Your task to perform on an android device: toggle airplane mode Image 0: 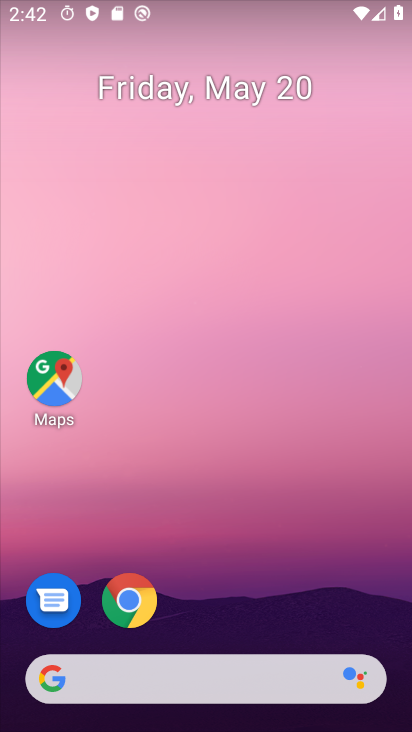
Step 0: drag from (240, 517) to (233, 46)
Your task to perform on an android device: toggle airplane mode Image 1: 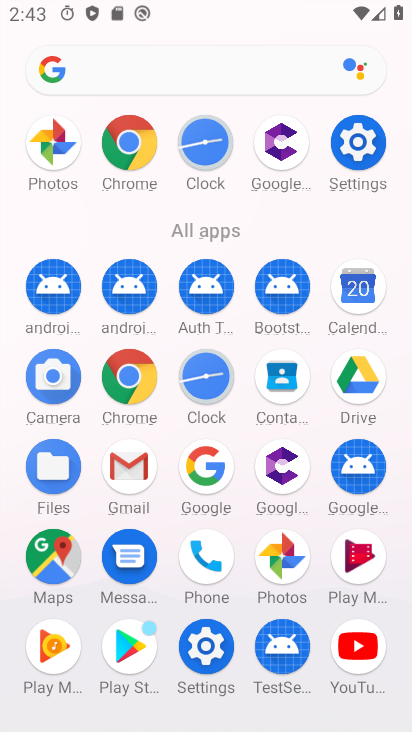
Step 1: drag from (21, 551) to (14, 240)
Your task to perform on an android device: toggle airplane mode Image 2: 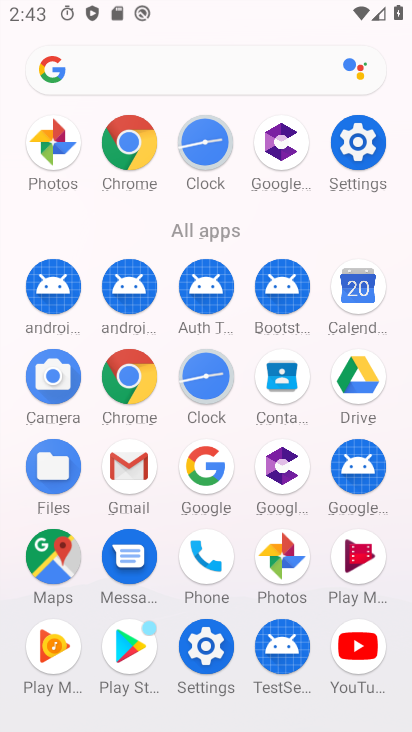
Step 2: click (205, 641)
Your task to perform on an android device: toggle airplane mode Image 3: 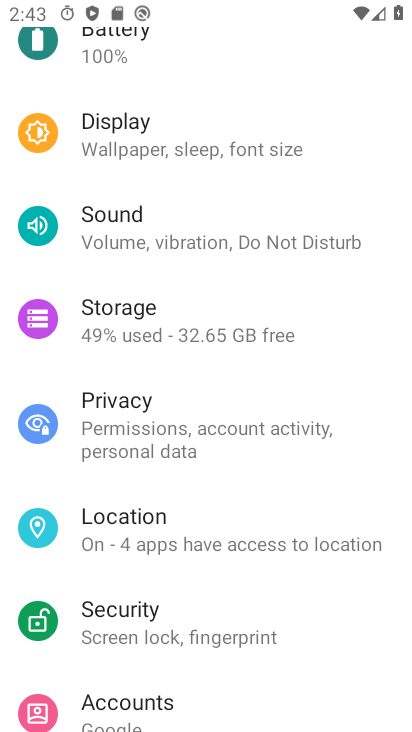
Step 3: drag from (239, 134) to (230, 602)
Your task to perform on an android device: toggle airplane mode Image 4: 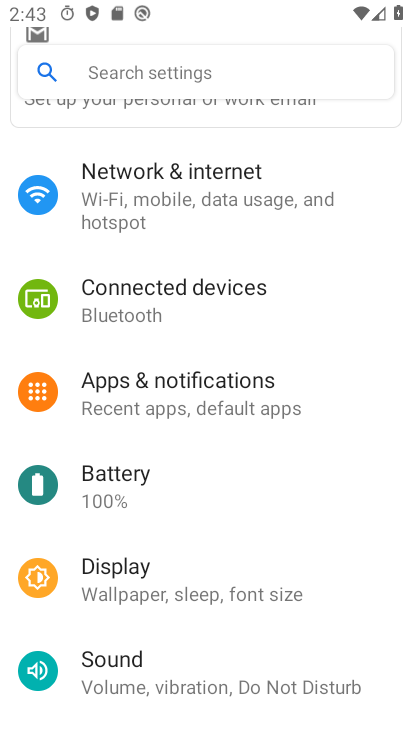
Step 4: click (221, 188)
Your task to perform on an android device: toggle airplane mode Image 5: 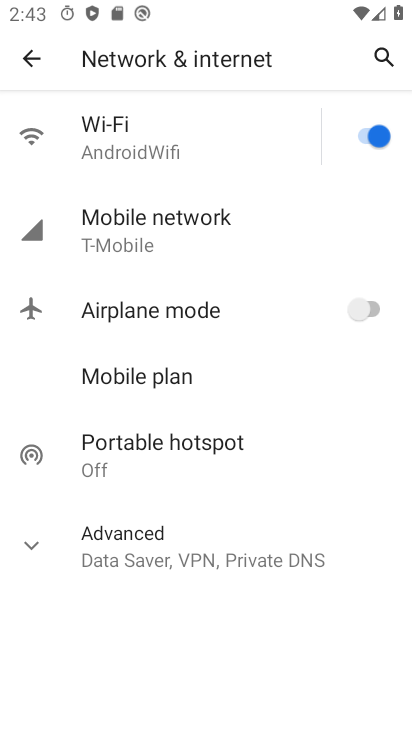
Step 5: click (362, 301)
Your task to perform on an android device: toggle airplane mode Image 6: 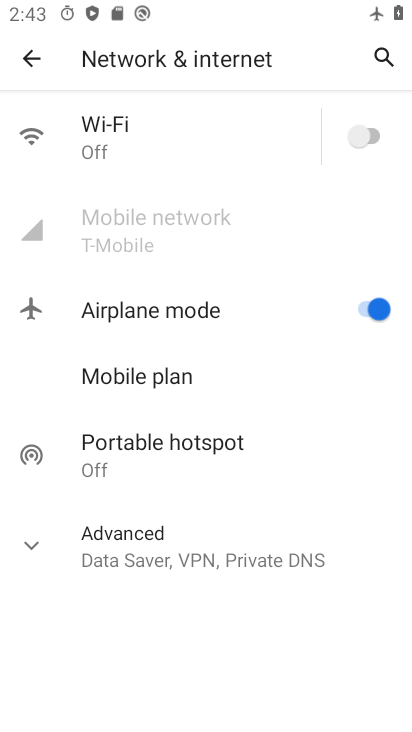
Step 6: click (25, 541)
Your task to perform on an android device: toggle airplane mode Image 7: 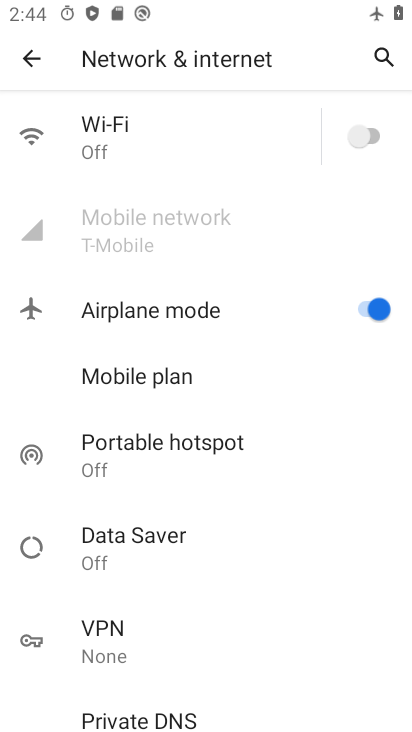
Step 7: task complete